Your task to perform on an android device: move a message to another label in the gmail app Image 0: 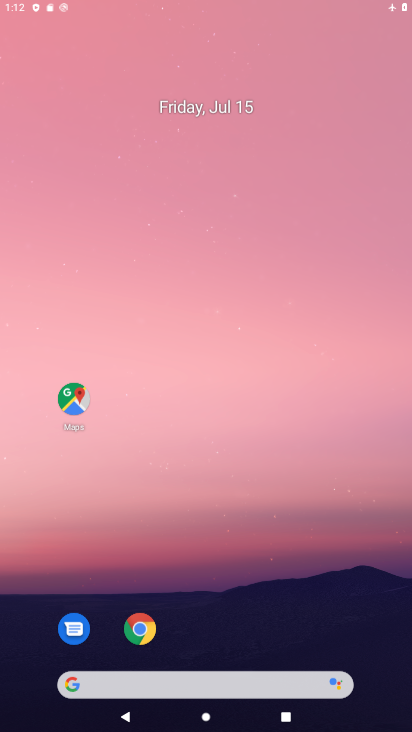
Step 0: press home button
Your task to perform on an android device: move a message to another label in the gmail app Image 1: 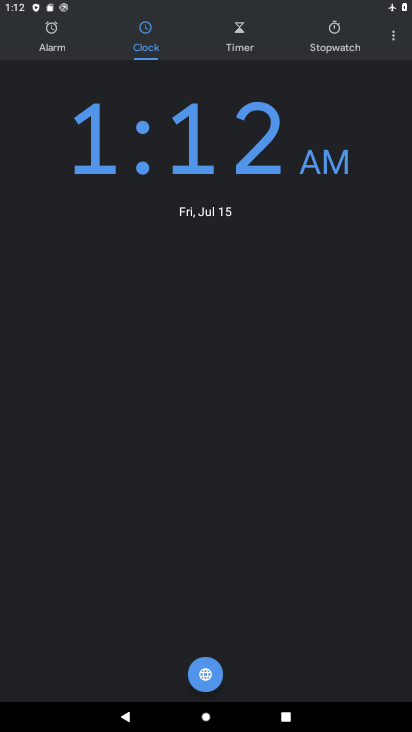
Step 1: drag from (285, 388) to (271, 98)
Your task to perform on an android device: move a message to another label in the gmail app Image 2: 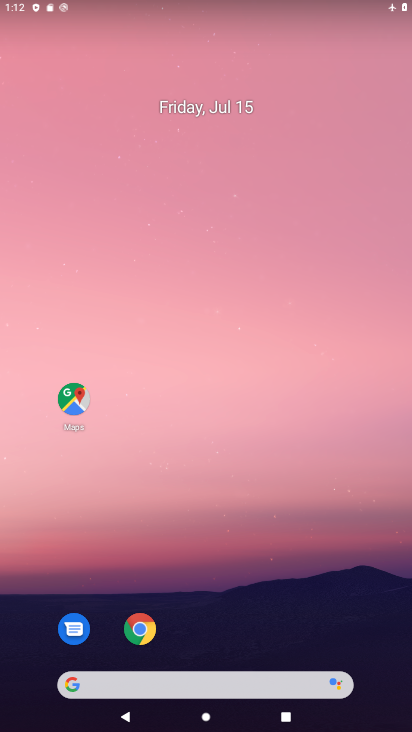
Step 2: drag from (324, 613) to (301, 35)
Your task to perform on an android device: move a message to another label in the gmail app Image 3: 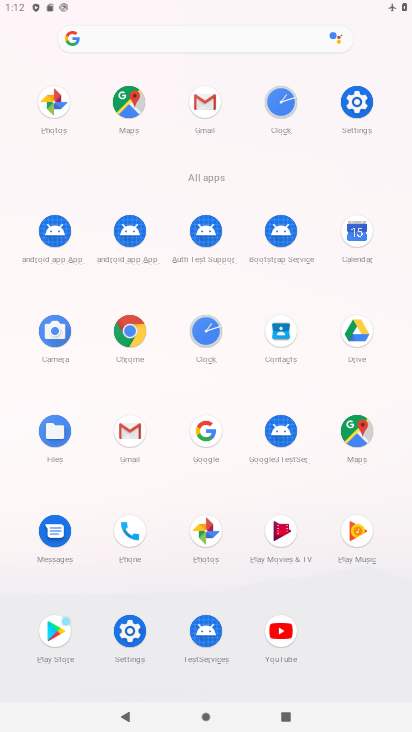
Step 3: click (136, 424)
Your task to perform on an android device: move a message to another label in the gmail app Image 4: 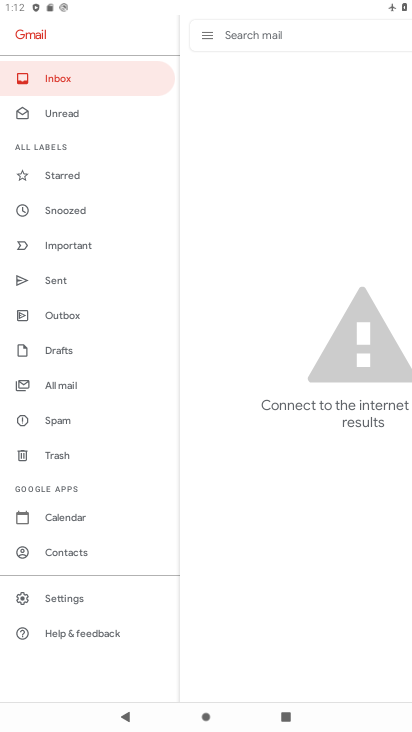
Step 4: click (223, 374)
Your task to perform on an android device: move a message to another label in the gmail app Image 5: 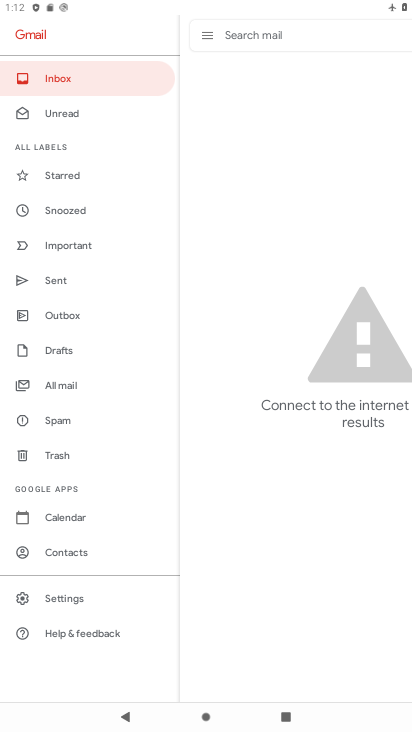
Step 5: click (208, 34)
Your task to perform on an android device: move a message to another label in the gmail app Image 6: 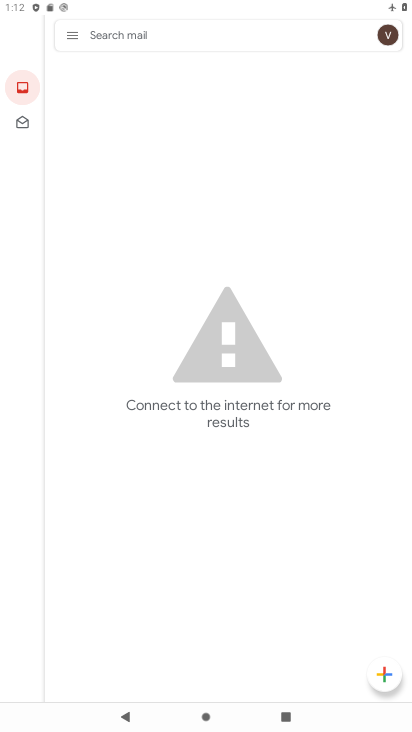
Step 6: task complete